Your task to perform on an android device: add a label to a message in the gmail app Image 0: 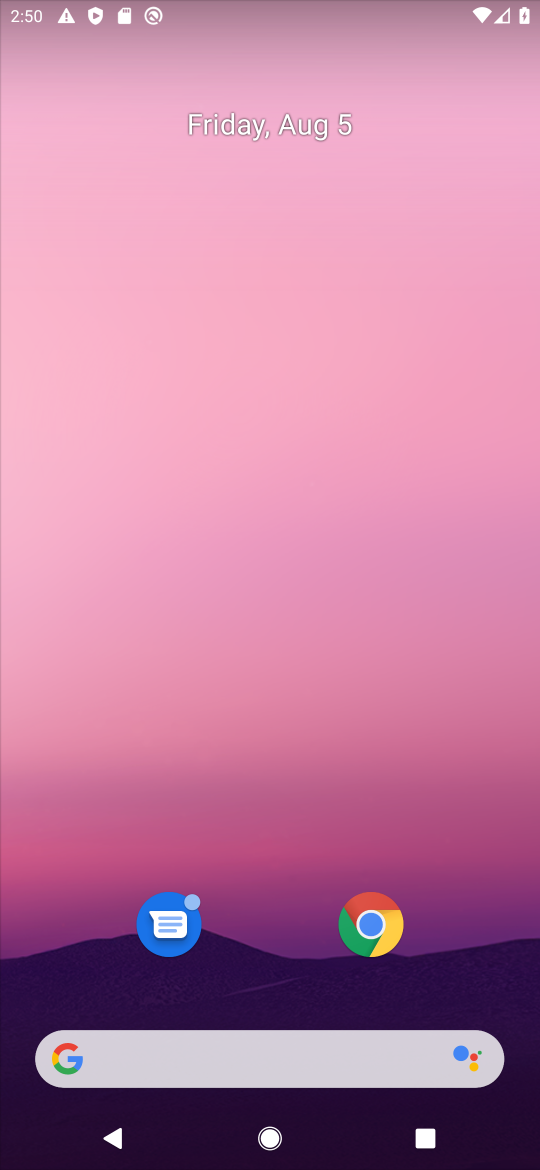
Step 0: drag from (465, 918) to (372, 30)
Your task to perform on an android device: add a label to a message in the gmail app Image 1: 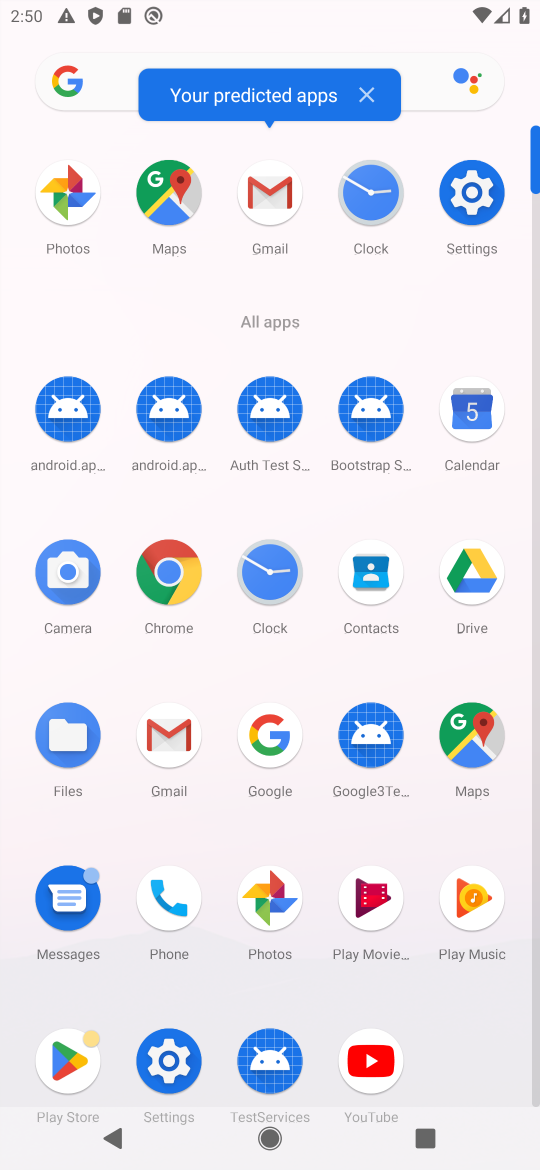
Step 1: click (177, 743)
Your task to perform on an android device: add a label to a message in the gmail app Image 2: 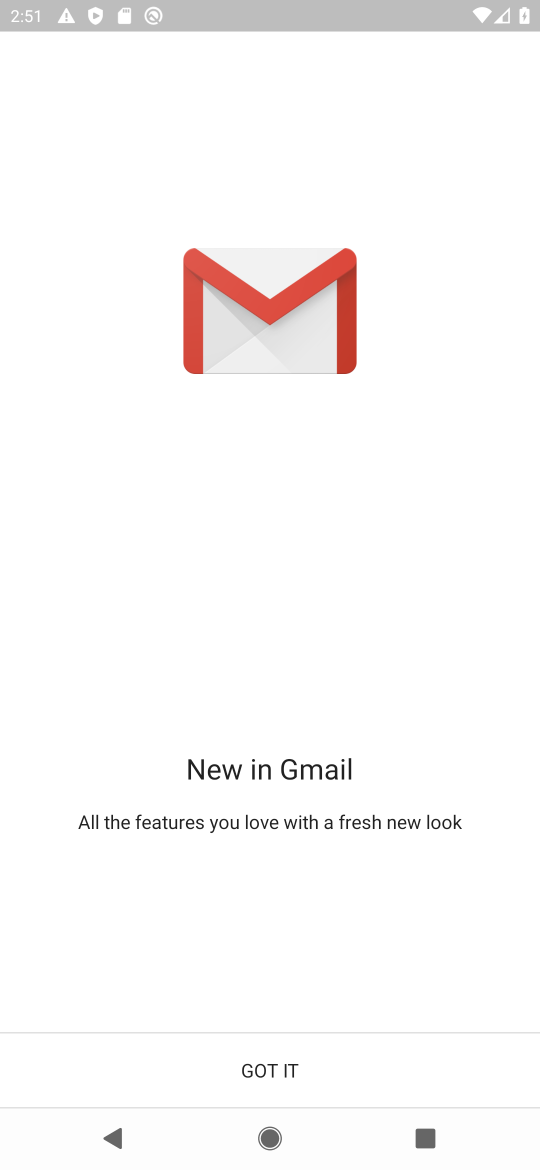
Step 2: click (301, 1066)
Your task to perform on an android device: add a label to a message in the gmail app Image 3: 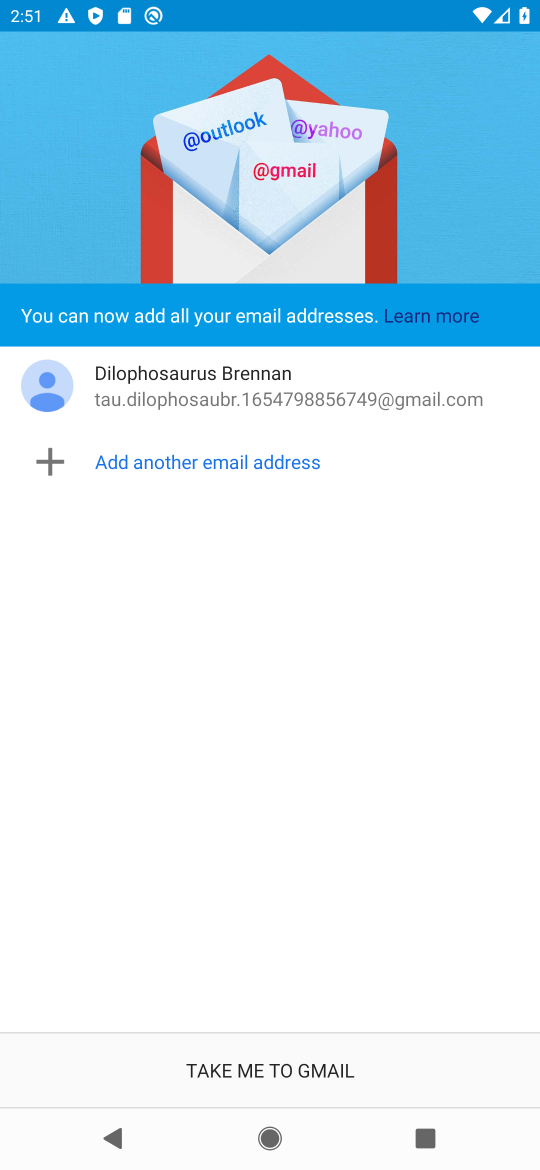
Step 3: click (298, 1066)
Your task to perform on an android device: add a label to a message in the gmail app Image 4: 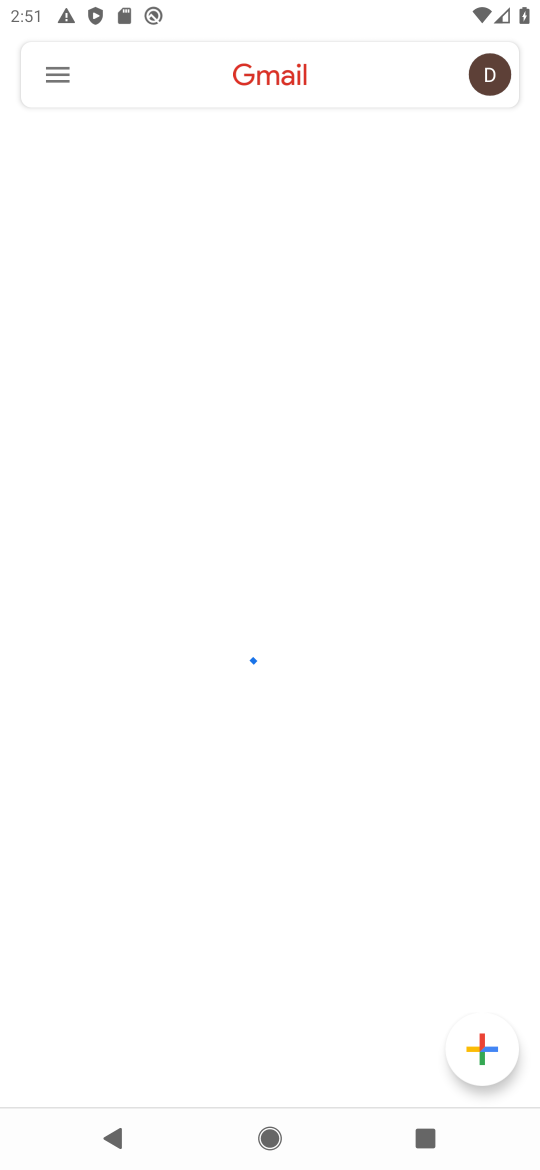
Step 4: click (49, 81)
Your task to perform on an android device: add a label to a message in the gmail app Image 5: 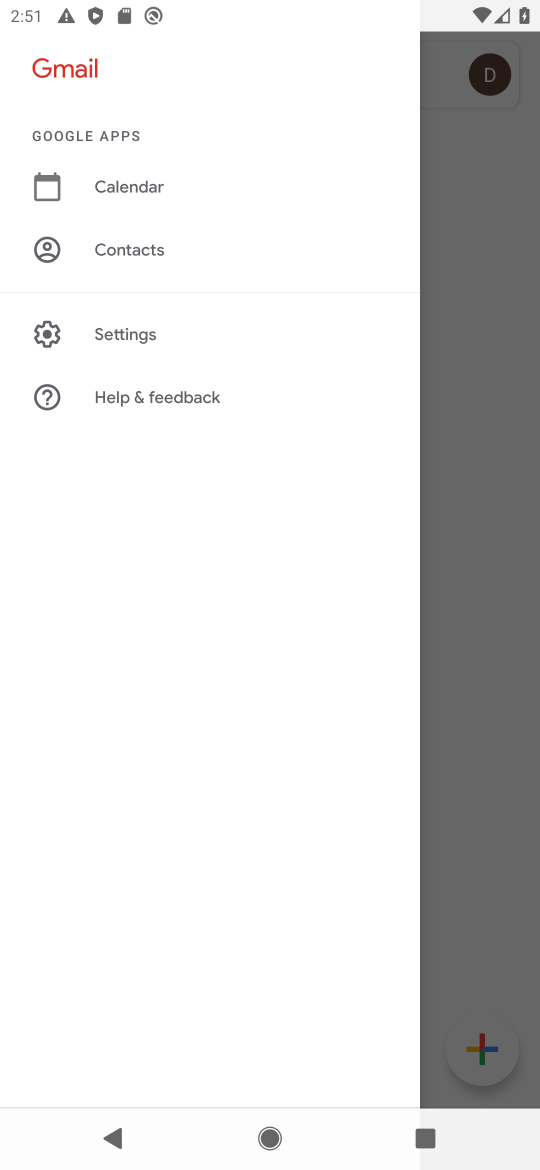
Step 5: click (459, 448)
Your task to perform on an android device: add a label to a message in the gmail app Image 6: 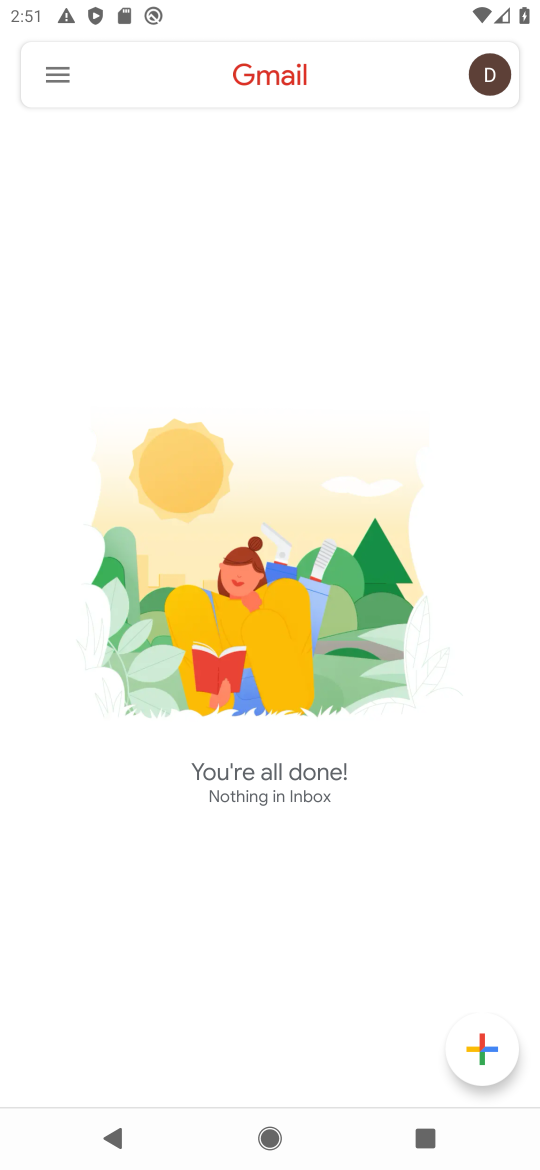
Step 6: click (70, 78)
Your task to perform on an android device: add a label to a message in the gmail app Image 7: 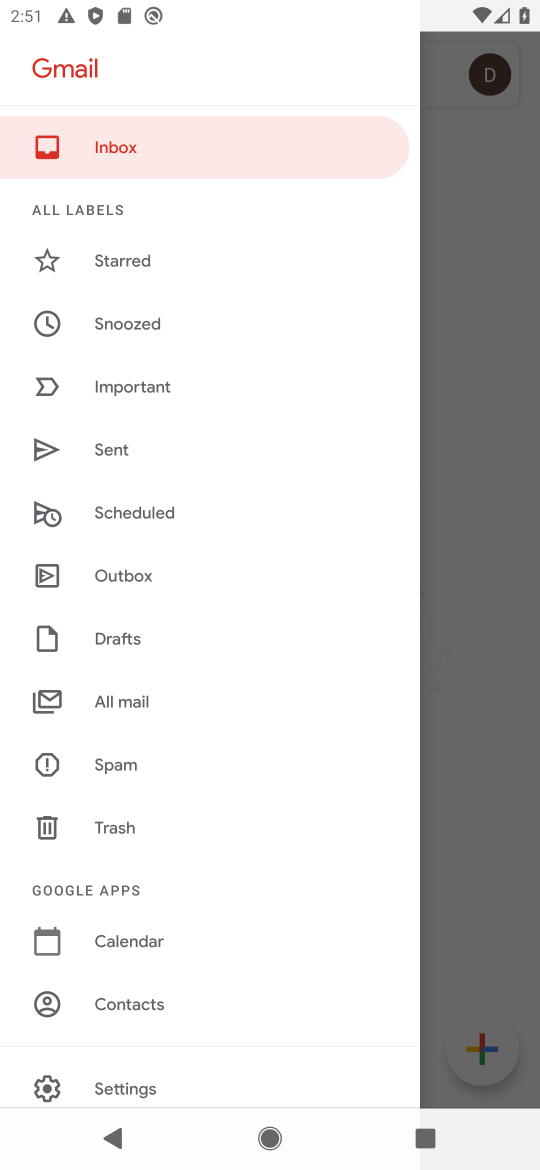
Step 7: click (122, 697)
Your task to perform on an android device: add a label to a message in the gmail app Image 8: 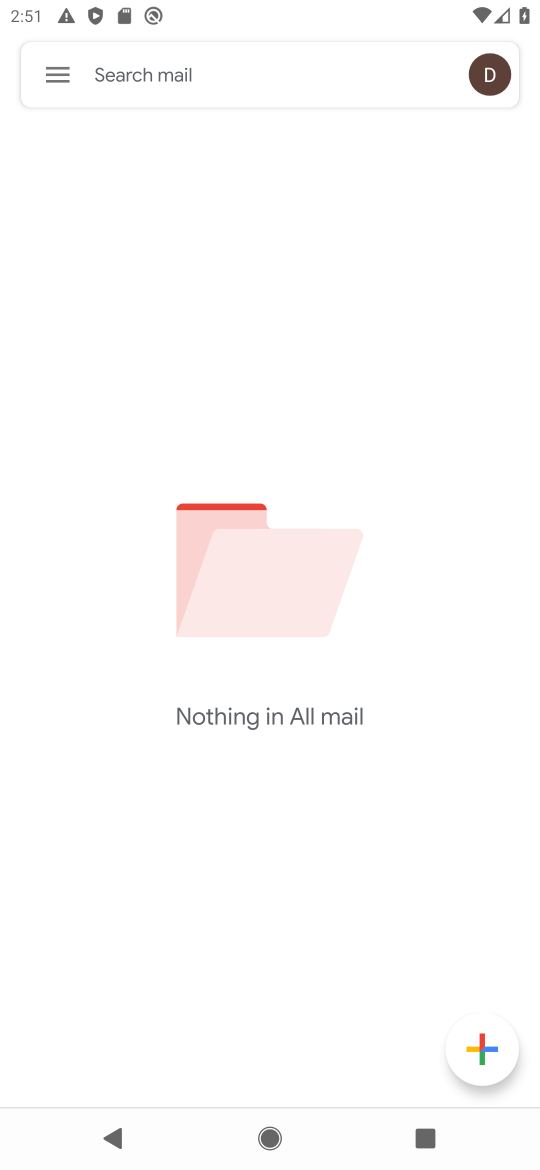
Step 8: task complete